Your task to perform on an android device: Open Google Maps and go to "Timeline" Image 0: 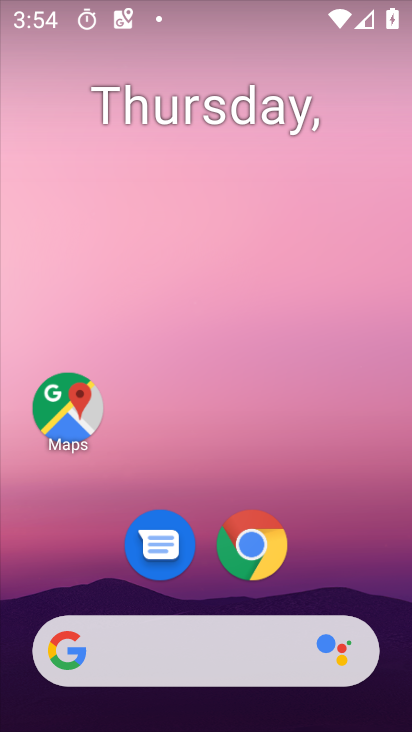
Step 0: drag from (162, 729) to (197, 4)
Your task to perform on an android device: Open Google Maps and go to "Timeline" Image 1: 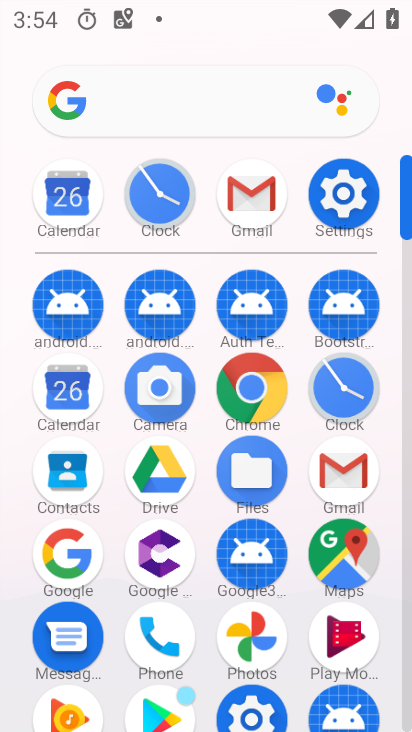
Step 1: click (336, 553)
Your task to perform on an android device: Open Google Maps and go to "Timeline" Image 2: 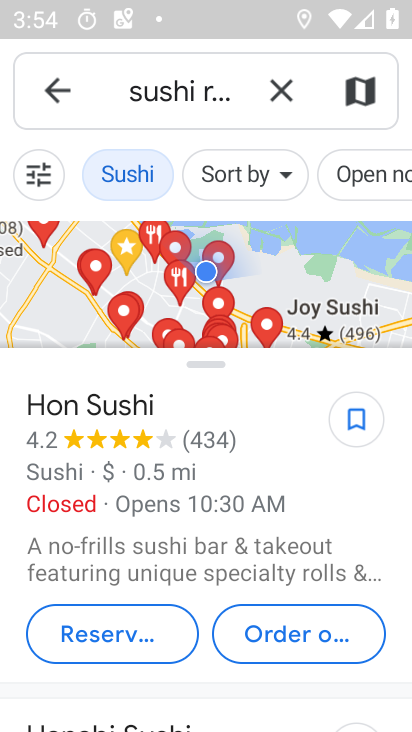
Step 2: click (56, 77)
Your task to perform on an android device: Open Google Maps and go to "Timeline" Image 3: 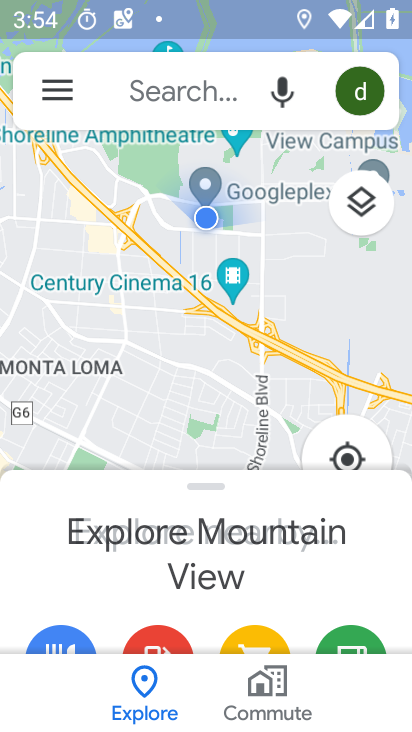
Step 3: click (57, 86)
Your task to perform on an android device: Open Google Maps and go to "Timeline" Image 4: 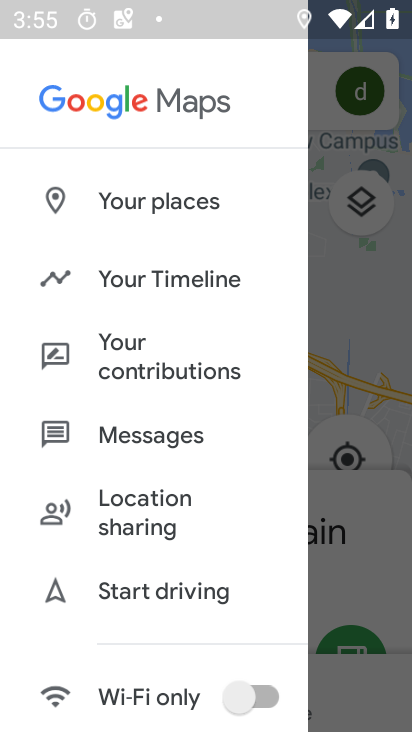
Step 4: click (171, 272)
Your task to perform on an android device: Open Google Maps and go to "Timeline" Image 5: 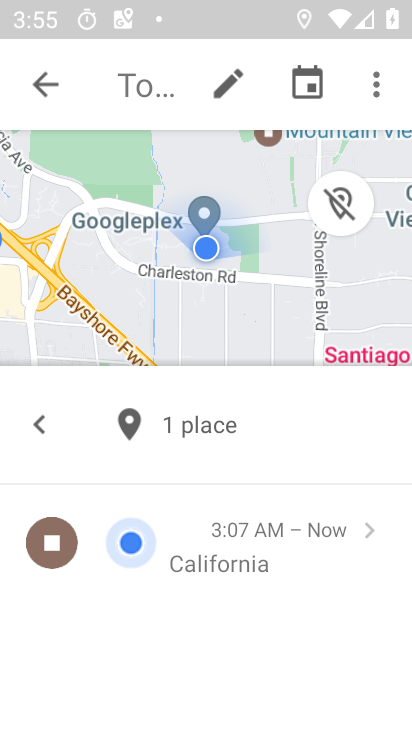
Step 5: task complete